Your task to perform on an android device: empty trash in google photos Image 0: 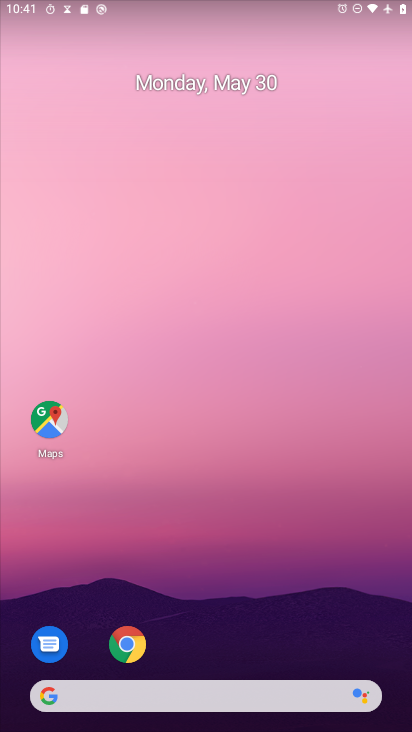
Step 0: drag from (210, 644) to (272, 96)
Your task to perform on an android device: empty trash in google photos Image 1: 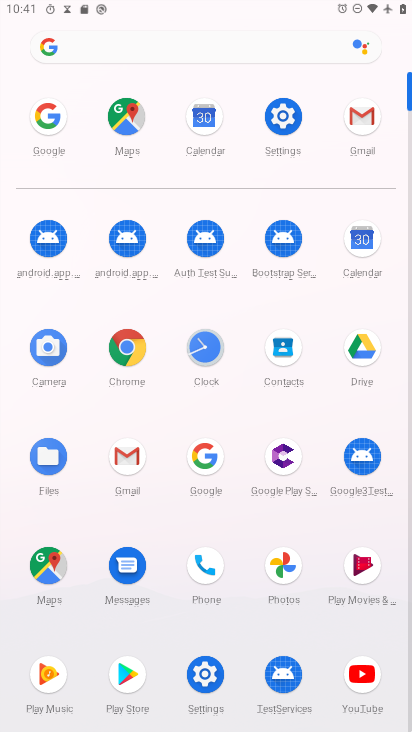
Step 1: click (282, 570)
Your task to perform on an android device: empty trash in google photos Image 2: 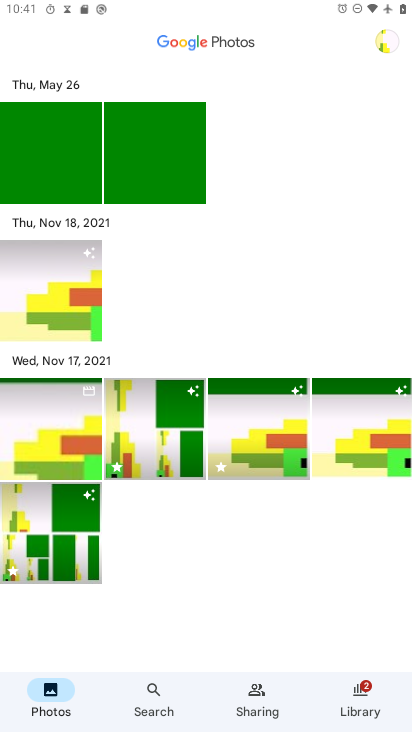
Step 2: press back button
Your task to perform on an android device: empty trash in google photos Image 3: 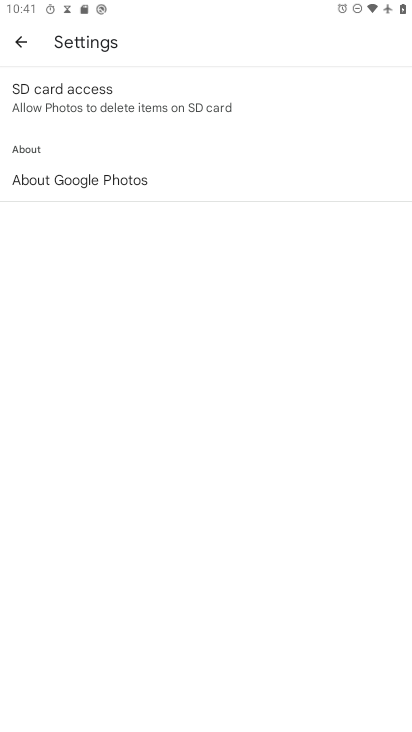
Step 3: press back button
Your task to perform on an android device: empty trash in google photos Image 4: 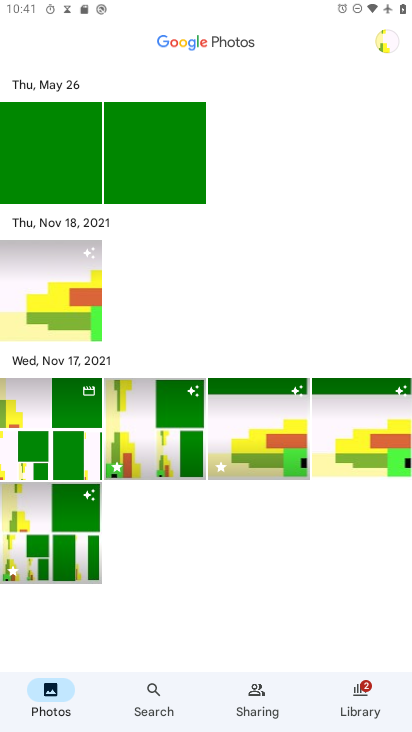
Step 4: click (367, 703)
Your task to perform on an android device: empty trash in google photos Image 5: 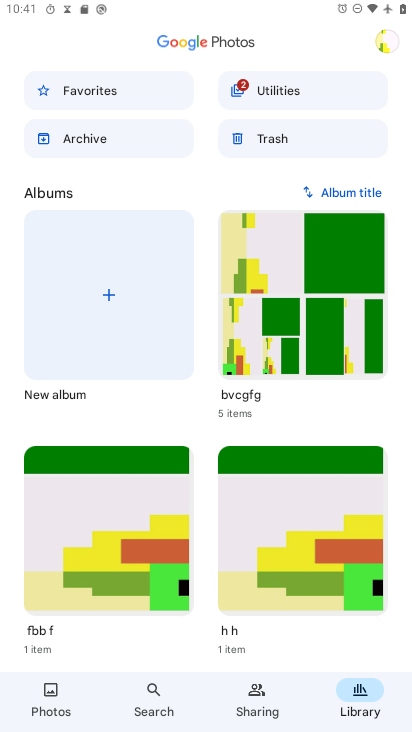
Step 5: click (276, 146)
Your task to perform on an android device: empty trash in google photos Image 6: 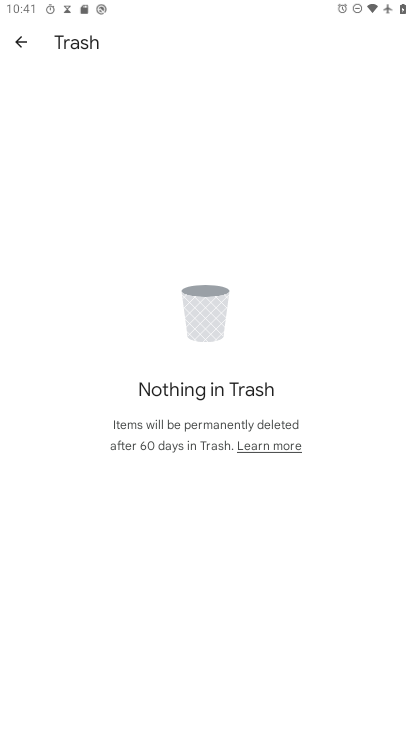
Step 6: task complete